Your task to perform on an android device: add a contact in the contacts app Image 0: 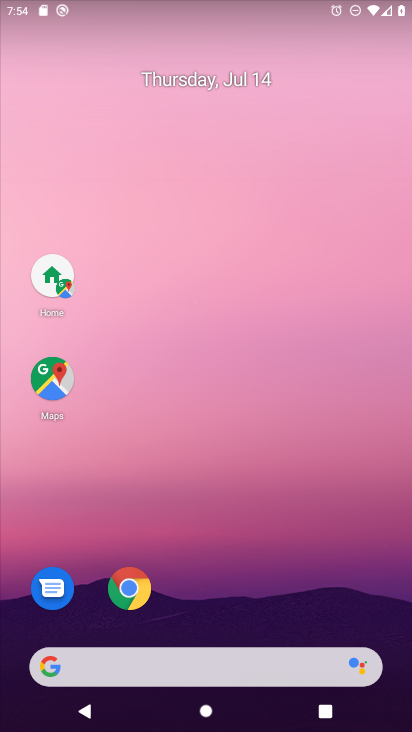
Step 0: drag from (34, 719) to (260, 9)
Your task to perform on an android device: add a contact in the contacts app Image 1: 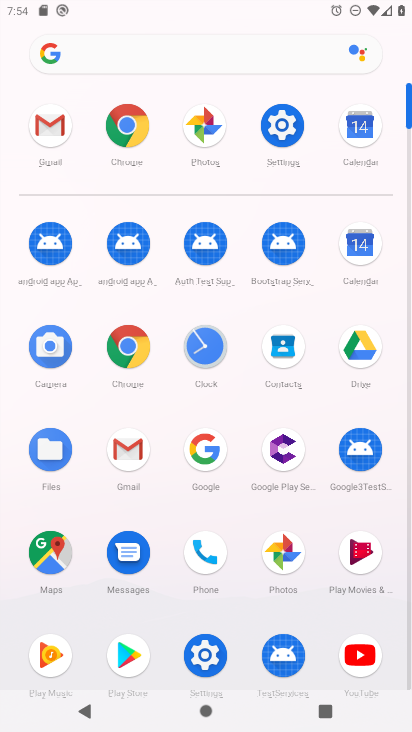
Step 1: click (290, 351)
Your task to perform on an android device: add a contact in the contacts app Image 2: 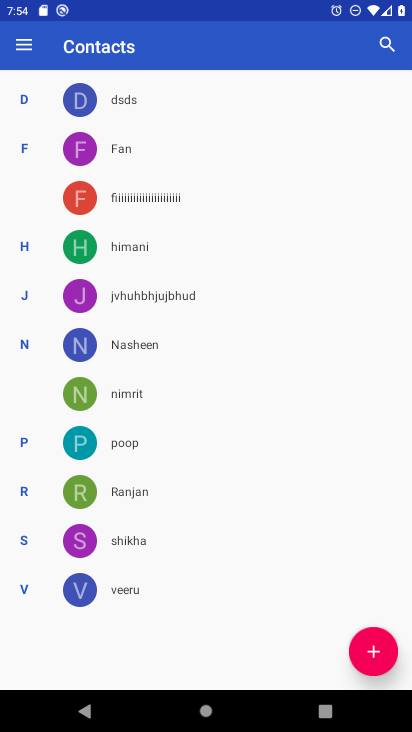
Step 2: click (368, 655)
Your task to perform on an android device: add a contact in the contacts app Image 3: 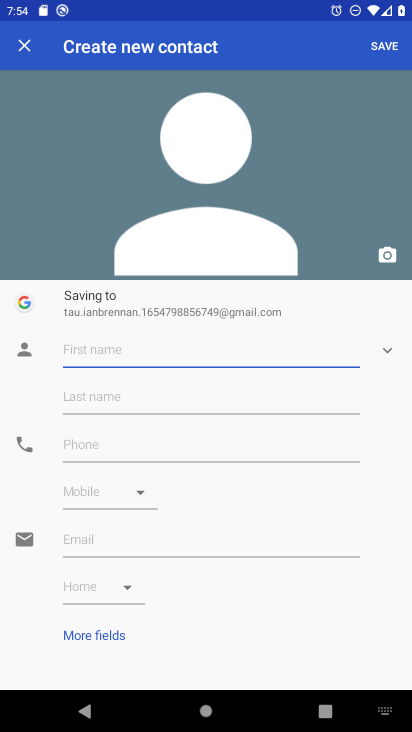
Step 3: type "xyz"
Your task to perform on an android device: add a contact in the contacts app Image 4: 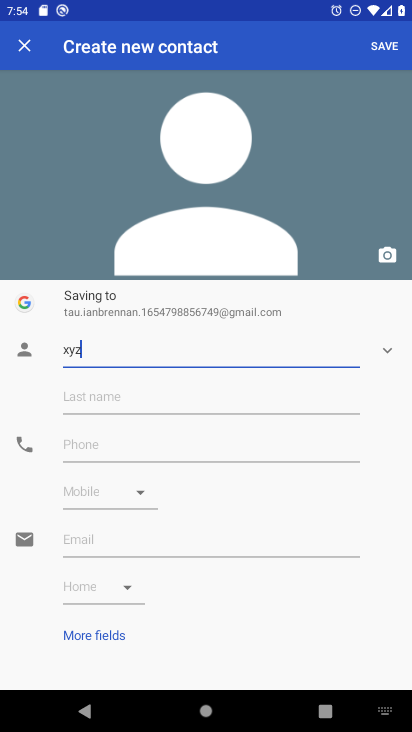
Step 4: type ""
Your task to perform on an android device: add a contact in the contacts app Image 5: 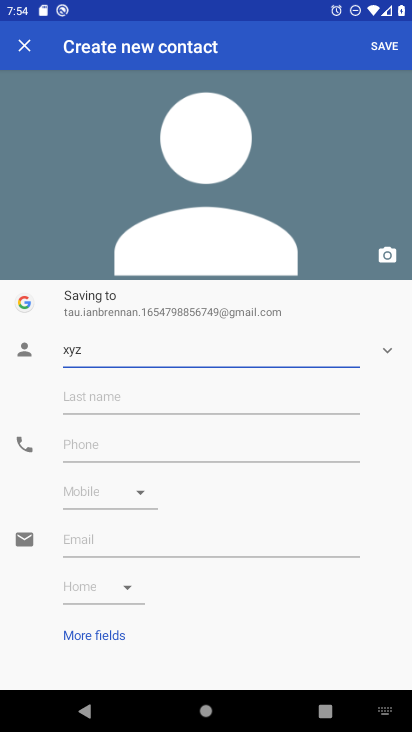
Step 5: click (378, 50)
Your task to perform on an android device: add a contact in the contacts app Image 6: 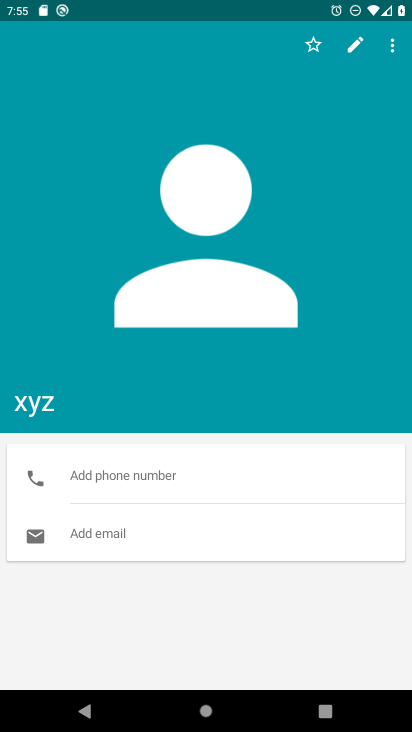
Step 6: task complete